Your task to perform on an android device: Open the Play Movies app and select the watchlist tab. Image 0: 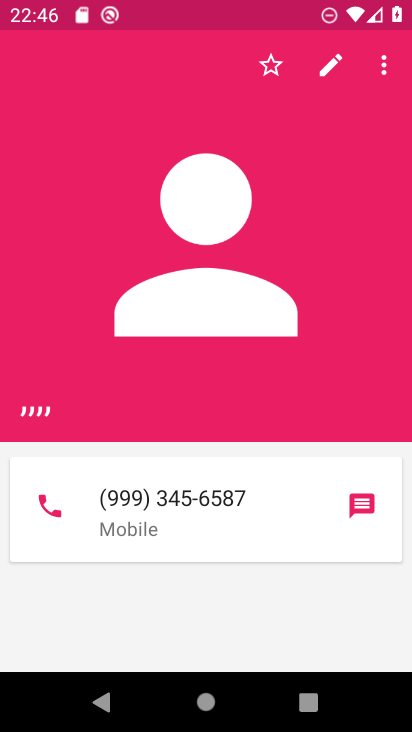
Step 0: press home button
Your task to perform on an android device: Open the Play Movies app and select the watchlist tab. Image 1: 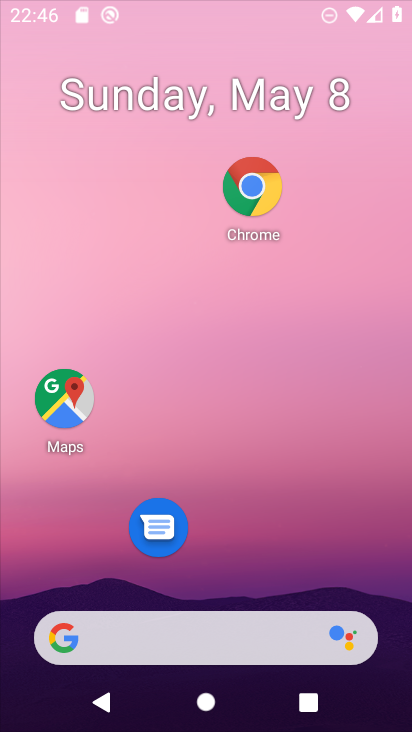
Step 1: drag from (289, 422) to (303, 293)
Your task to perform on an android device: Open the Play Movies app and select the watchlist tab. Image 2: 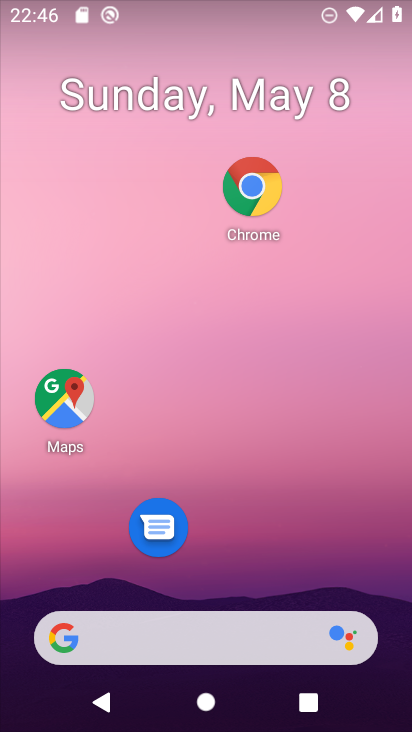
Step 2: drag from (288, 594) to (347, 227)
Your task to perform on an android device: Open the Play Movies app and select the watchlist tab. Image 3: 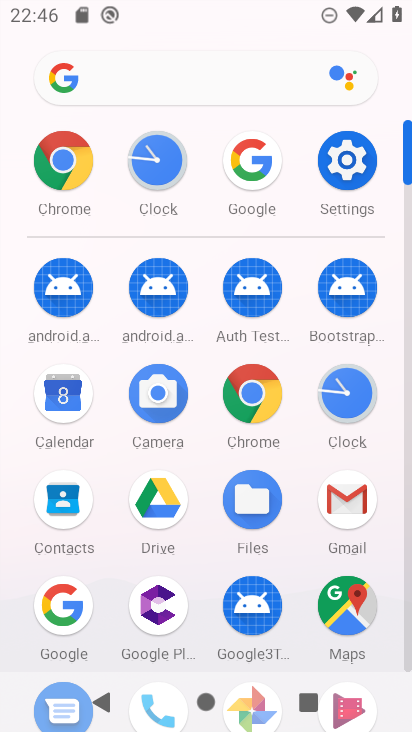
Step 3: drag from (304, 582) to (355, 265)
Your task to perform on an android device: Open the Play Movies app and select the watchlist tab. Image 4: 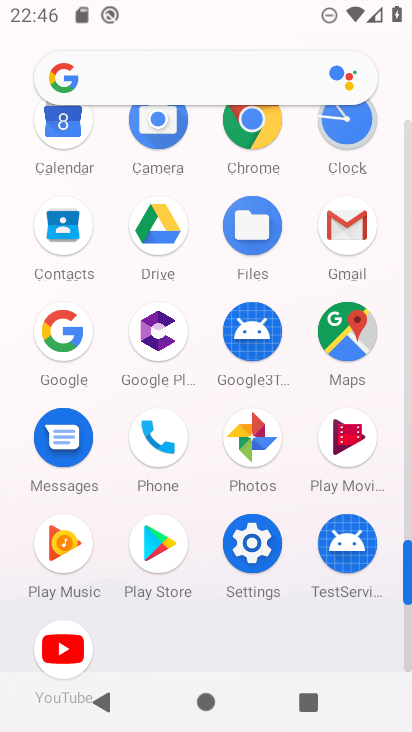
Step 4: click (331, 447)
Your task to perform on an android device: Open the Play Movies app and select the watchlist tab. Image 5: 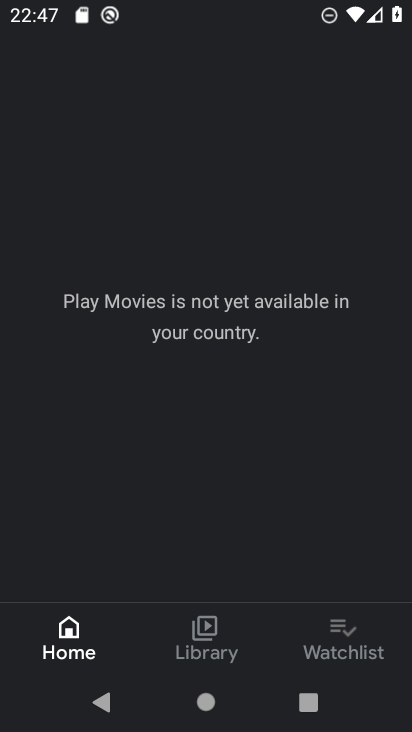
Step 5: click (327, 635)
Your task to perform on an android device: Open the Play Movies app and select the watchlist tab. Image 6: 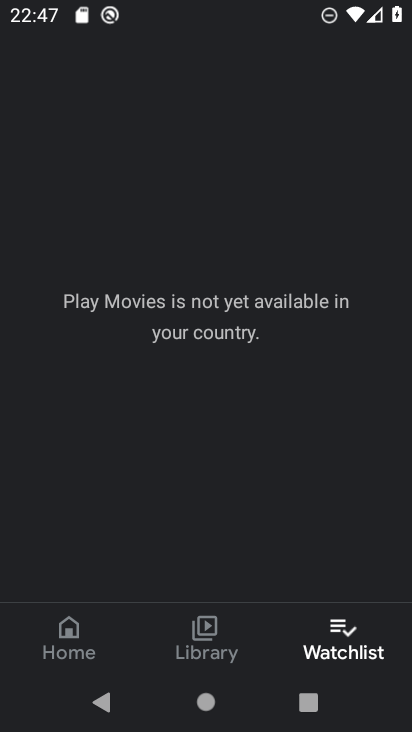
Step 6: task complete